Your task to perform on an android device: Open display settings Image 0: 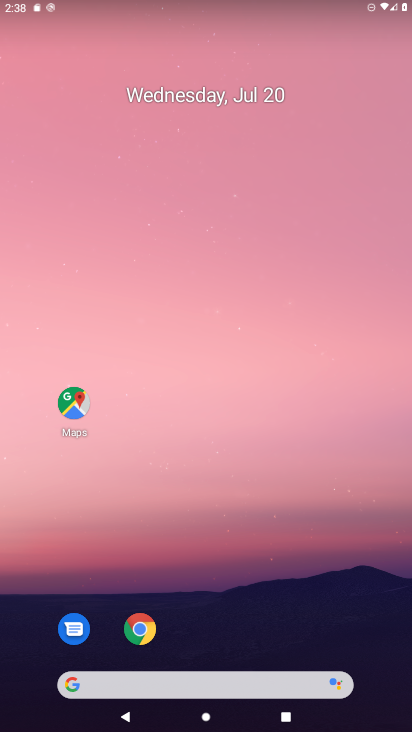
Step 0: press home button
Your task to perform on an android device: Open display settings Image 1: 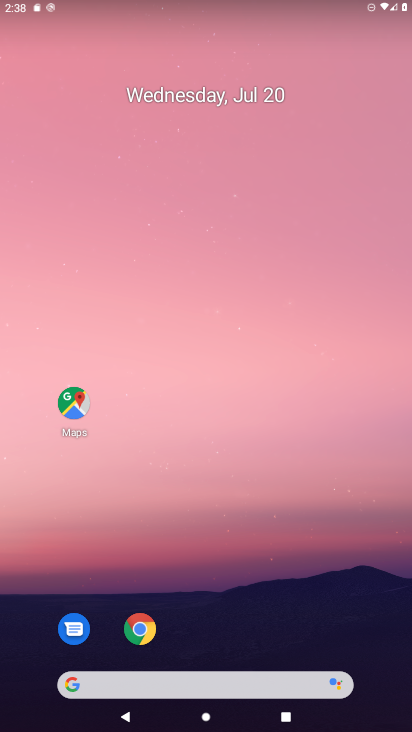
Step 1: drag from (204, 426) to (155, 187)
Your task to perform on an android device: Open display settings Image 2: 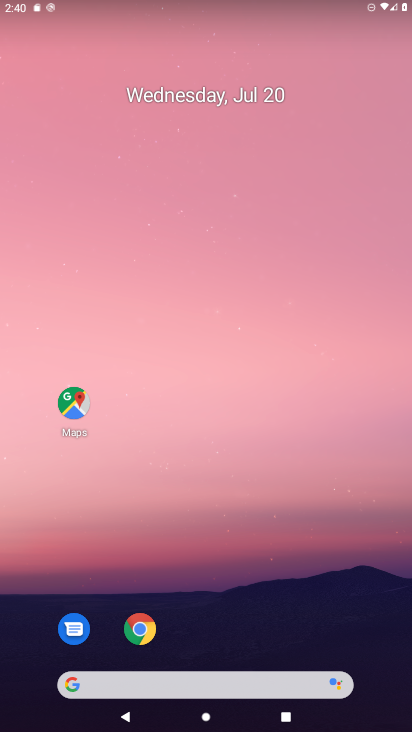
Step 2: drag from (296, 605) to (129, 110)
Your task to perform on an android device: Open display settings Image 3: 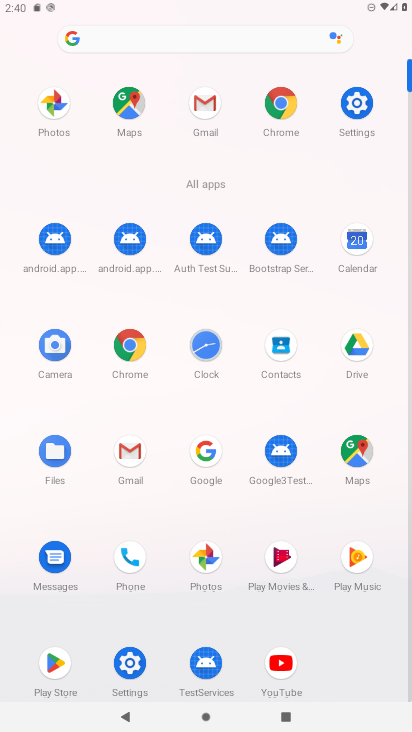
Step 3: click (129, 675)
Your task to perform on an android device: Open display settings Image 4: 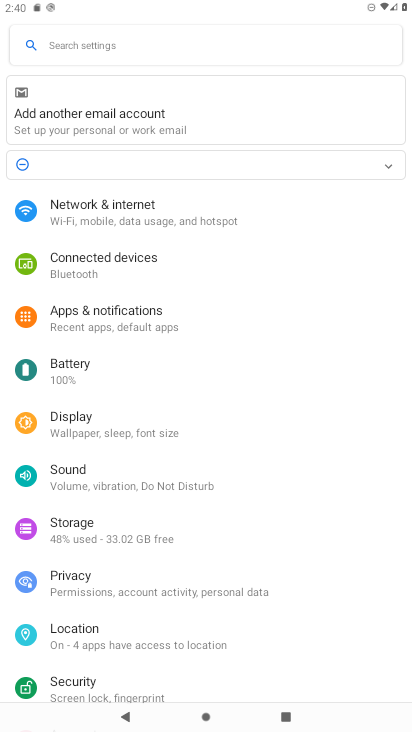
Step 4: click (59, 445)
Your task to perform on an android device: Open display settings Image 5: 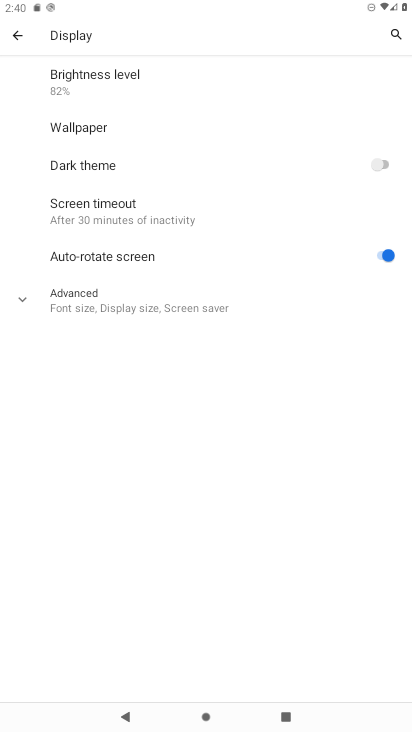
Step 5: task complete